Your task to perform on an android device: set an alarm Image 0: 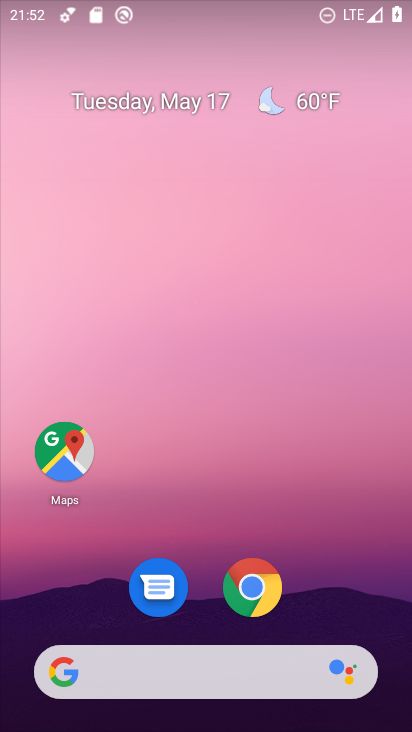
Step 0: drag from (228, 558) to (194, 214)
Your task to perform on an android device: set an alarm Image 1: 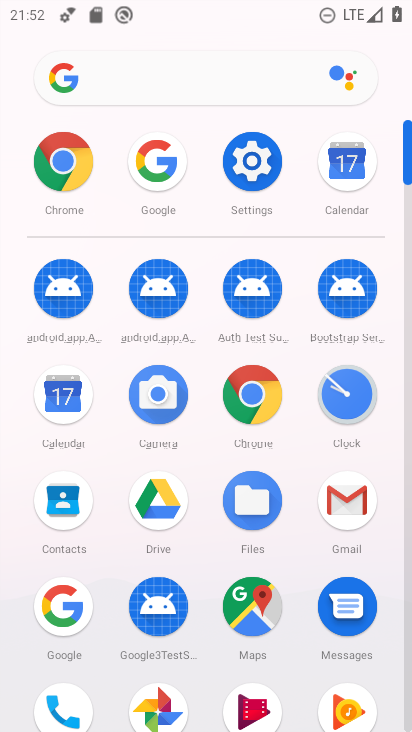
Step 1: click (343, 407)
Your task to perform on an android device: set an alarm Image 2: 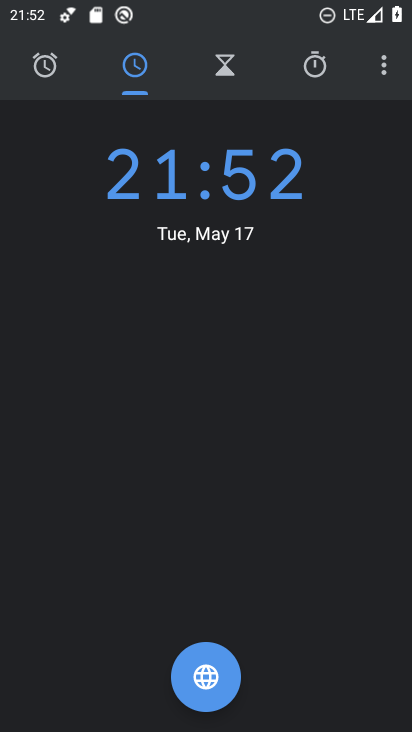
Step 2: click (28, 86)
Your task to perform on an android device: set an alarm Image 3: 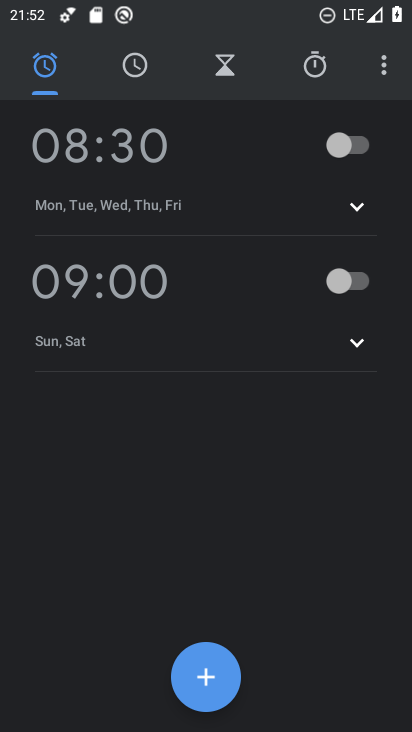
Step 3: click (214, 678)
Your task to perform on an android device: set an alarm Image 4: 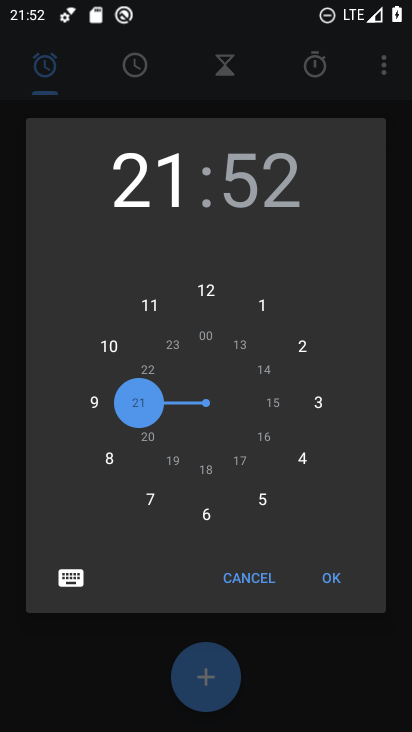
Step 4: click (365, 589)
Your task to perform on an android device: set an alarm Image 5: 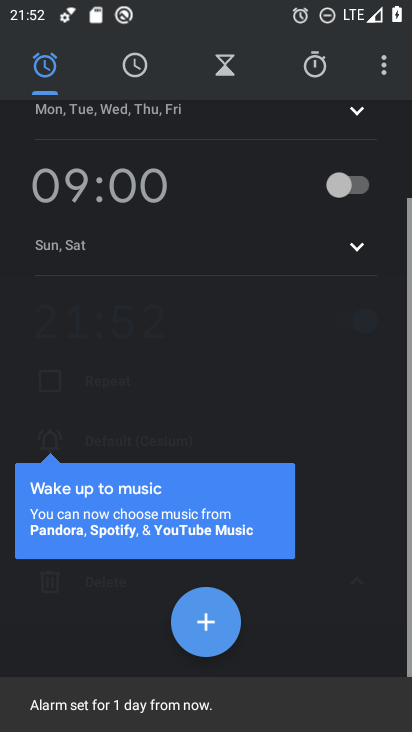
Step 5: click (342, 583)
Your task to perform on an android device: set an alarm Image 6: 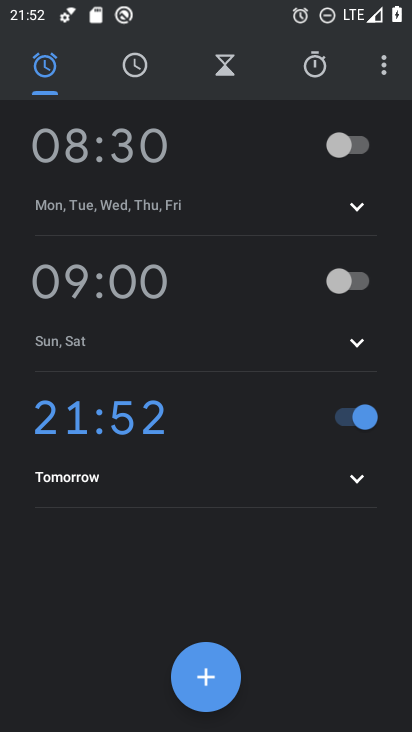
Step 6: task complete